Your task to perform on an android device: Open calendar and show me the second week of next month Image 0: 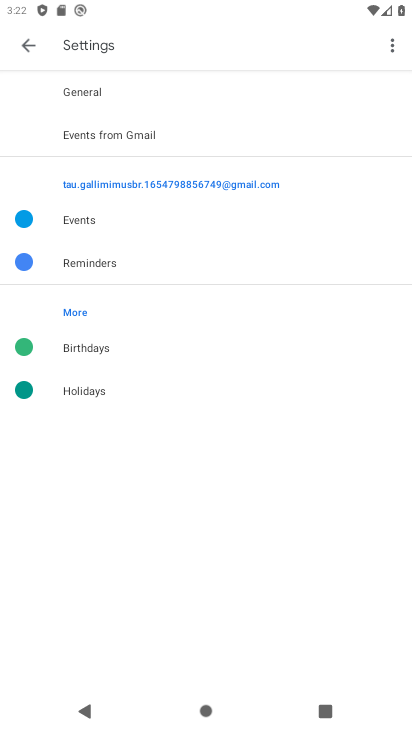
Step 0: click (35, 51)
Your task to perform on an android device: Open calendar and show me the second week of next month Image 1: 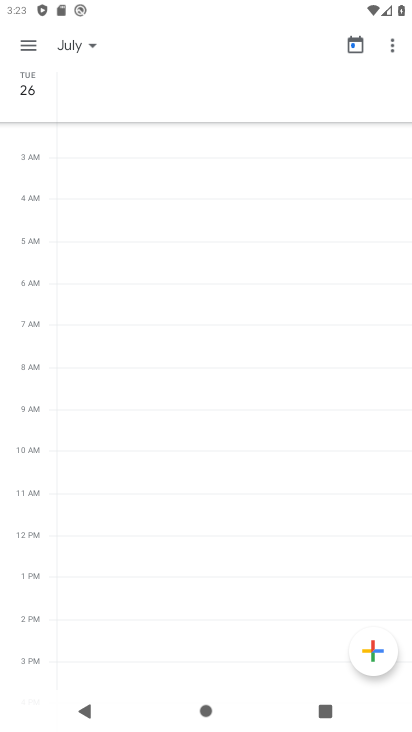
Step 1: click (27, 42)
Your task to perform on an android device: Open calendar and show me the second week of next month Image 2: 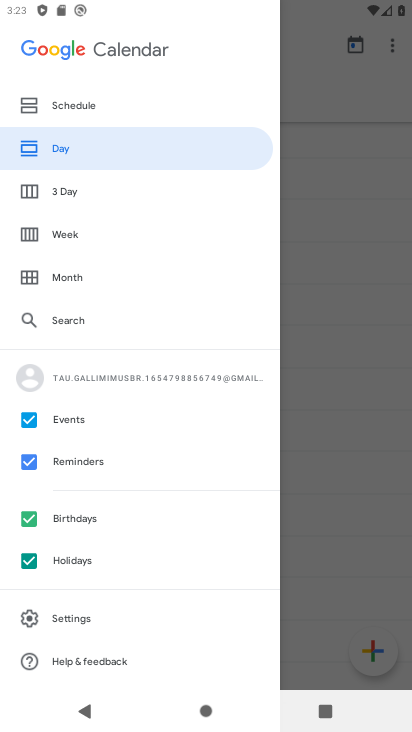
Step 2: click (103, 232)
Your task to perform on an android device: Open calendar and show me the second week of next month Image 3: 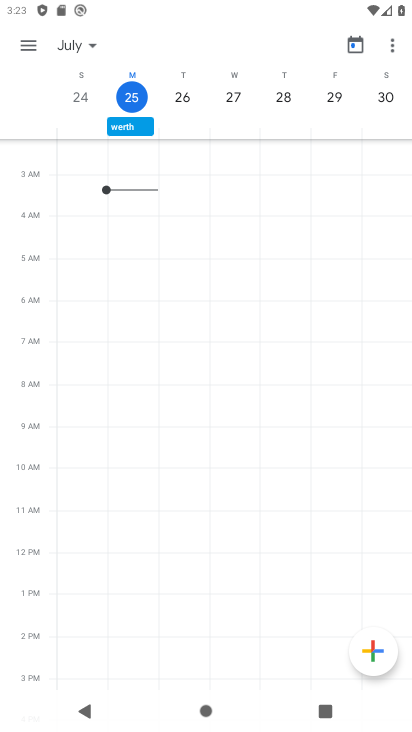
Step 3: click (80, 46)
Your task to perform on an android device: Open calendar and show me the second week of next month Image 4: 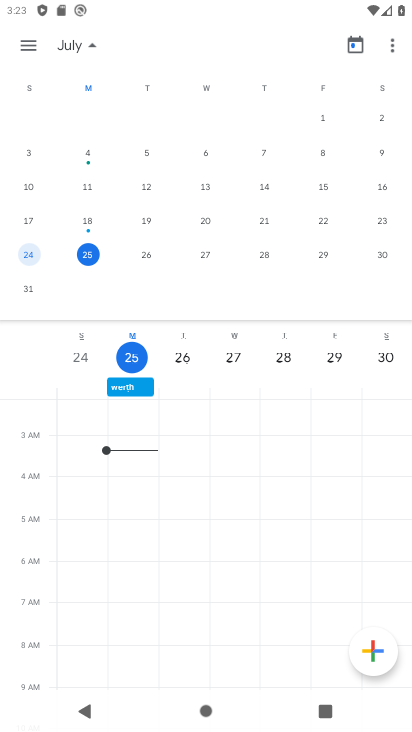
Step 4: drag from (319, 230) to (0, 210)
Your task to perform on an android device: Open calendar and show me the second week of next month Image 5: 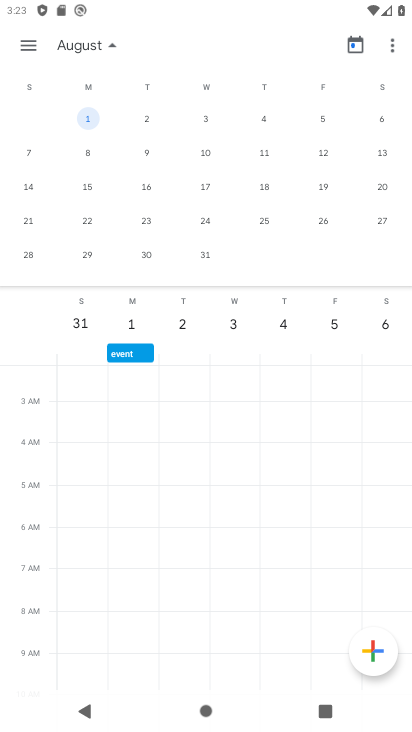
Step 5: click (141, 116)
Your task to perform on an android device: Open calendar and show me the second week of next month Image 6: 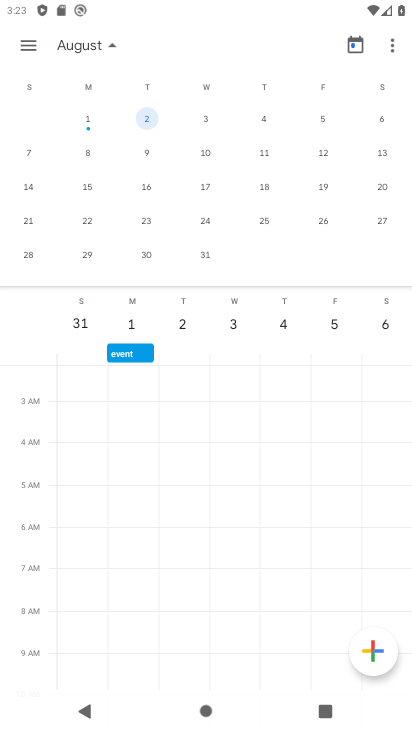
Step 6: task complete